Your task to perform on an android device: check storage Image 0: 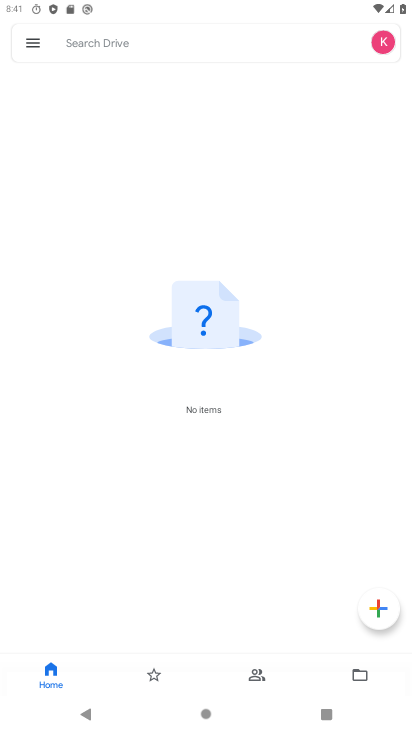
Step 0: press home button
Your task to perform on an android device: check storage Image 1: 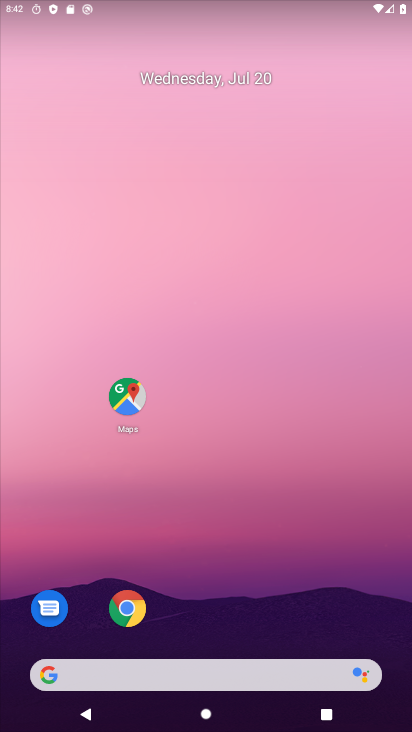
Step 1: drag from (239, 624) to (267, 189)
Your task to perform on an android device: check storage Image 2: 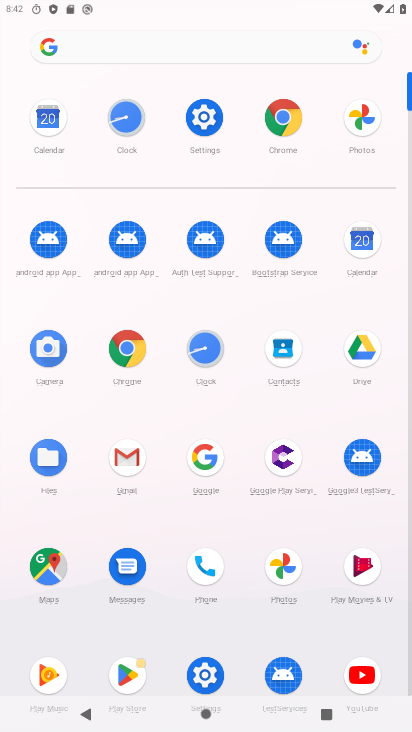
Step 2: click (215, 676)
Your task to perform on an android device: check storage Image 3: 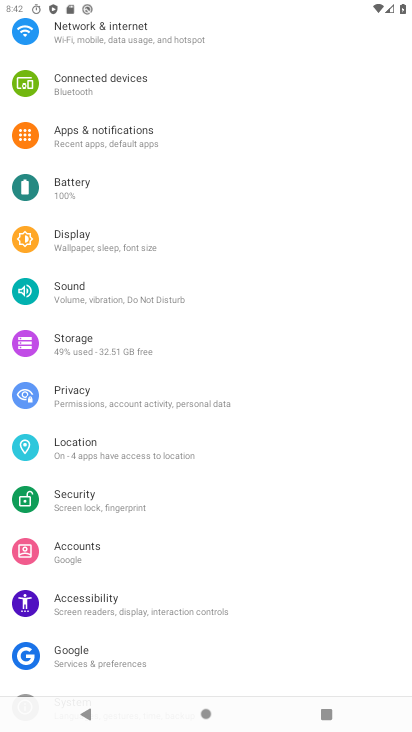
Step 3: click (136, 342)
Your task to perform on an android device: check storage Image 4: 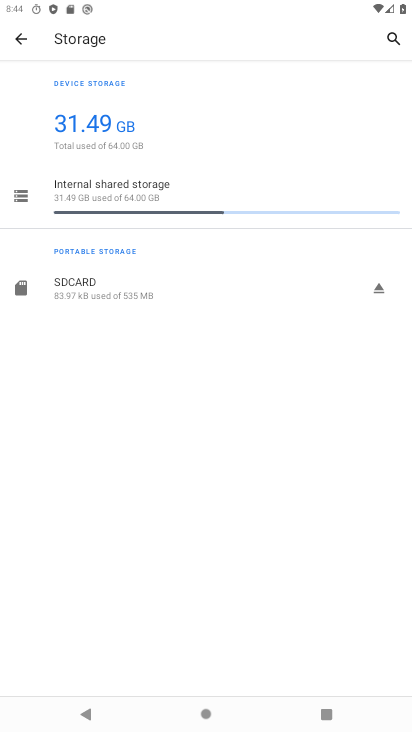
Step 4: click (217, 201)
Your task to perform on an android device: check storage Image 5: 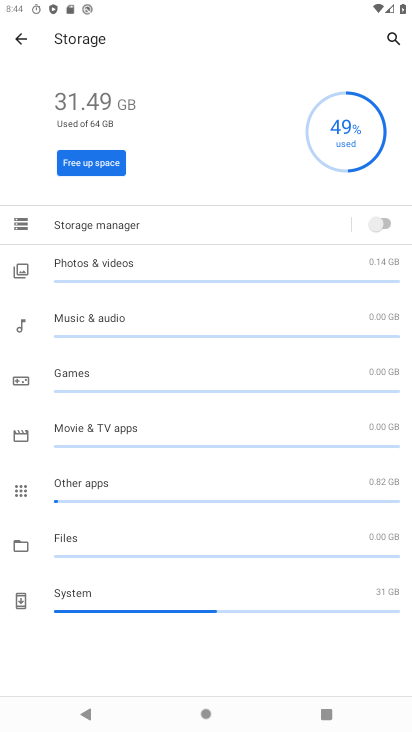
Step 5: task complete